Your task to perform on an android device: Open wifi settings Image 0: 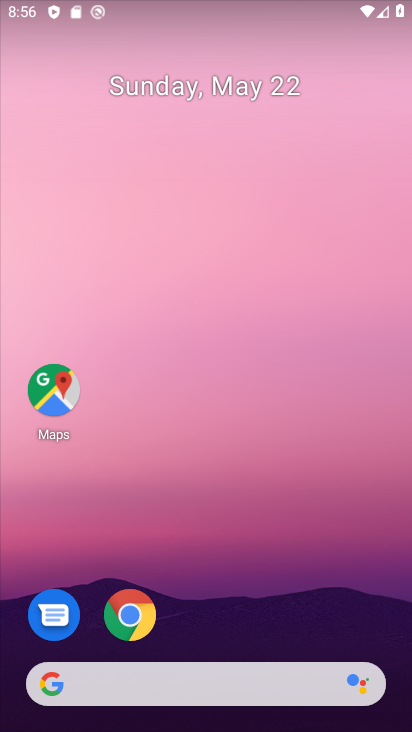
Step 0: drag from (254, 406) to (246, 226)
Your task to perform on an android device: Open wifi settings Image 1: 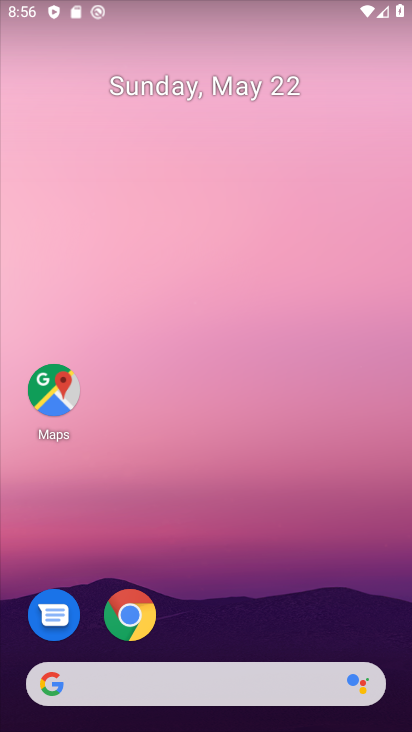
Step 1: drag from (263, 635) to (263, 205)
Your task to perform on an android device: Open wifi settings Image 2: 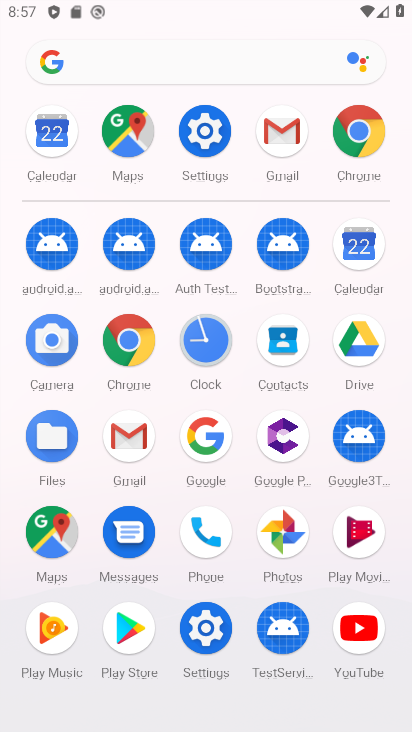
Step 2: click (198, 133)
Your task to perform on an android device: Open wifi settings Image 3: 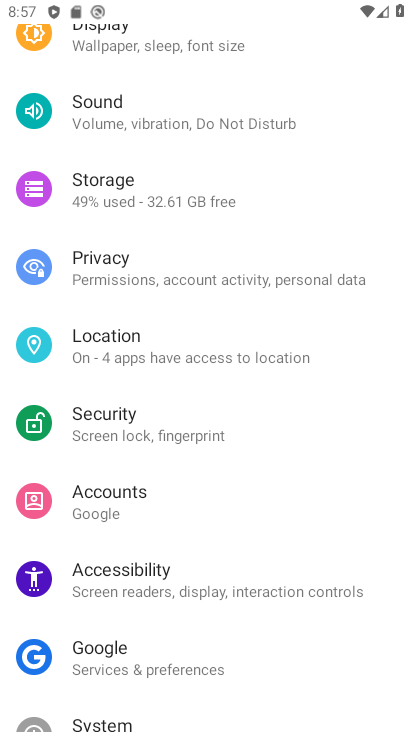
Step 3: drag from (242, 173) to (255, 679)
Your task to perform on an android device: Open wifi settings Image 4: 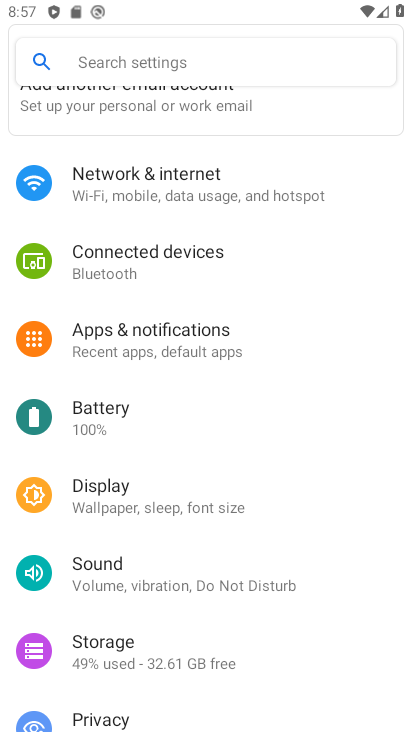
Step 4: click (208, 145)
Your task to perform on an android device: Open wifi settings Image 5: 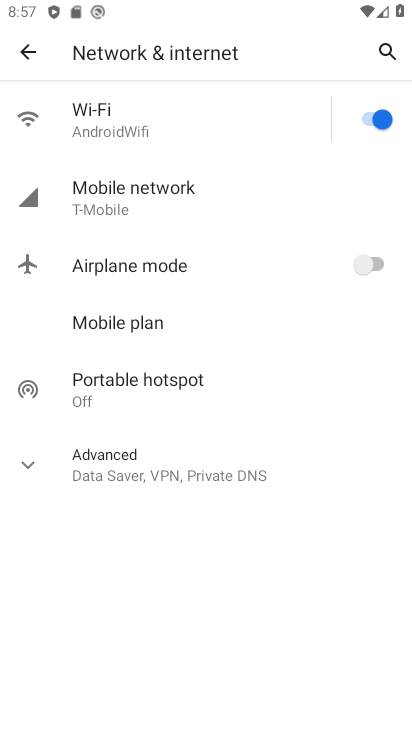
Step 5: task complete